Your task to perform on an android device: toggle pop-ups in chrome Image 0: 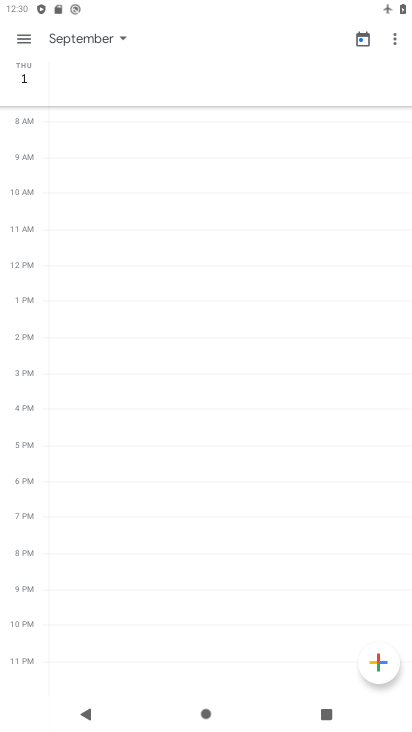
Step 0: press home button
Your task to perform on an android device: toggle pop-ups in chrome Image 1: 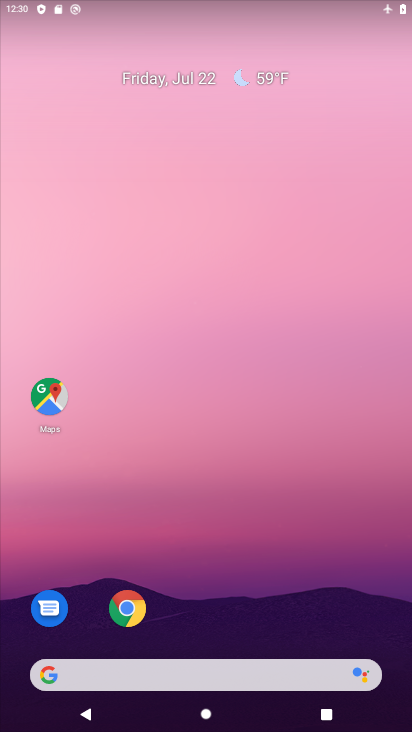
Step 1: click (118, 611)
Your task to perform on an android device: toggle pop-ups in chrome Image 2: 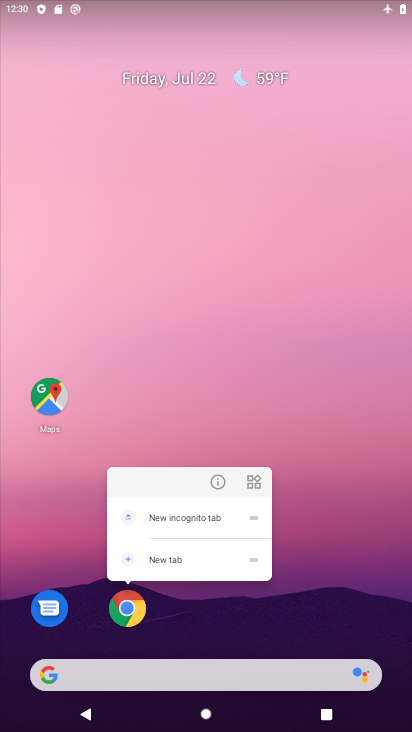
Step 2: click (128, 607)
Your task to perform on an android device: toggle pop-ups in chrome Image 3: 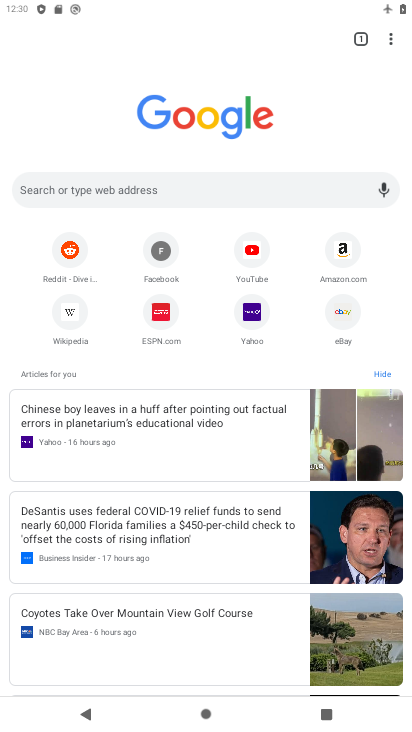
Step 3: click (390, 36)
Your task to perform on an android device: toggle pop-ups in chrome Image 4: 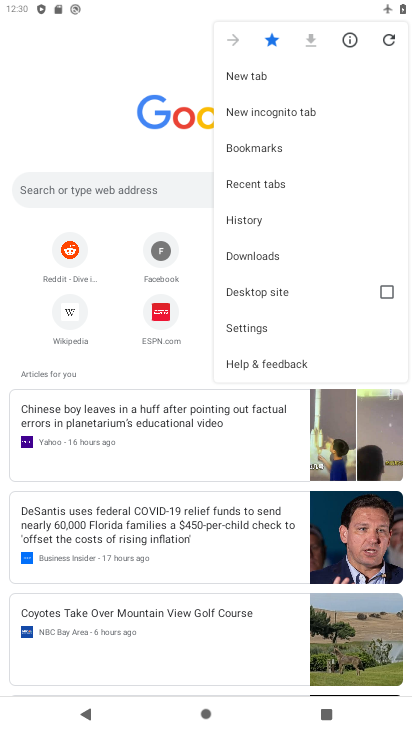
Step 4: click (254, 329)
Your task to perform on an android device: toggle pop-ups in chrome Image 5: 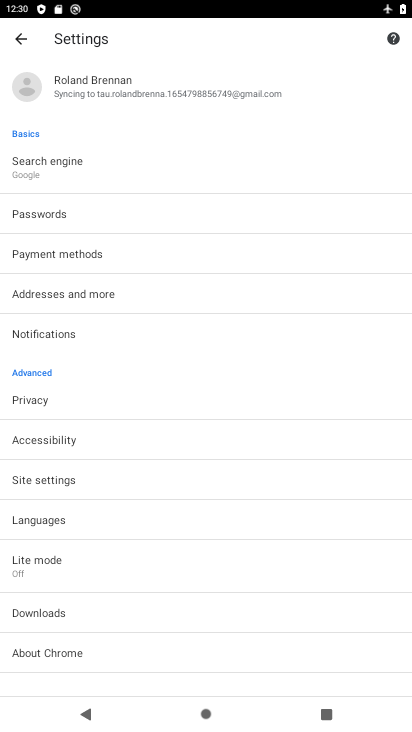
Step 5: click (72, 485)
Your task to perform on an android device: toggle pop-ups in chrome Image 6: 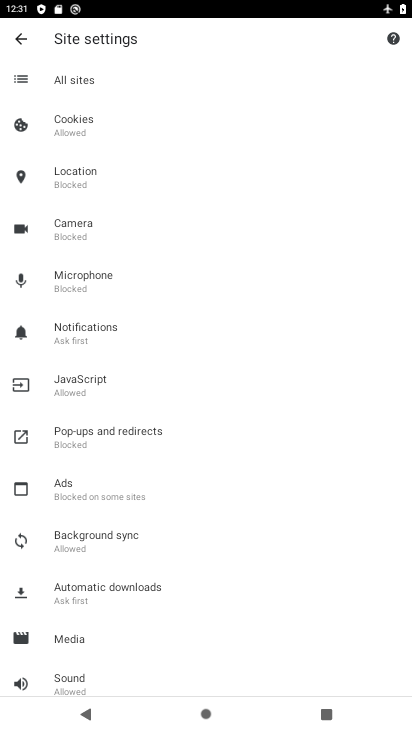
Step 6: click (107, 440)
Your task to perform on an android device: toggle pop-ups in chrome Image 7: 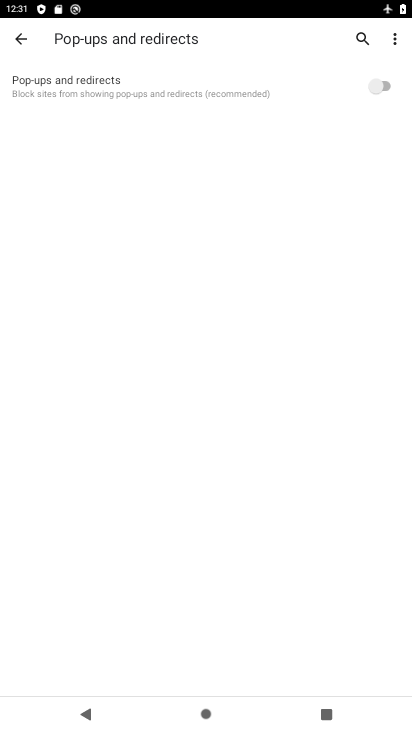
Step 7: click (359, 80)
Your task to perform on an android device: toggle pop-ups in chrome Image 8: 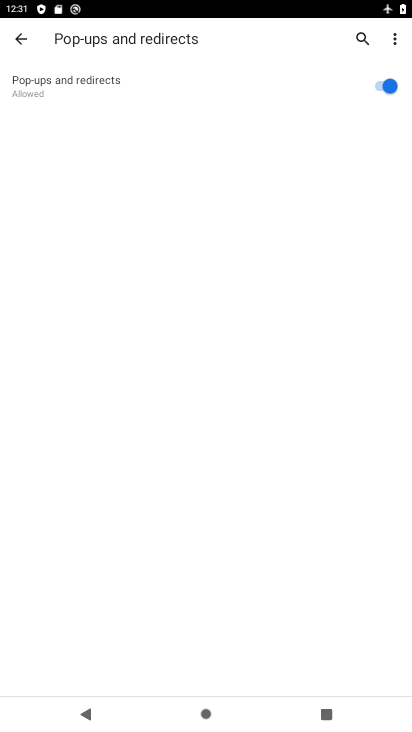
Step 8: task complete